Your task to perform on an android device: Open Yahoo.com Image 0: 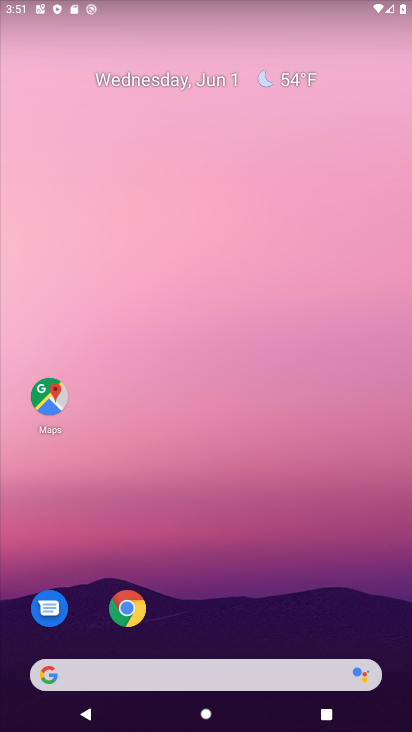
Step 0: click (137, 606)
Your task to perform on an android device: Open Yahoo.com Image 1: 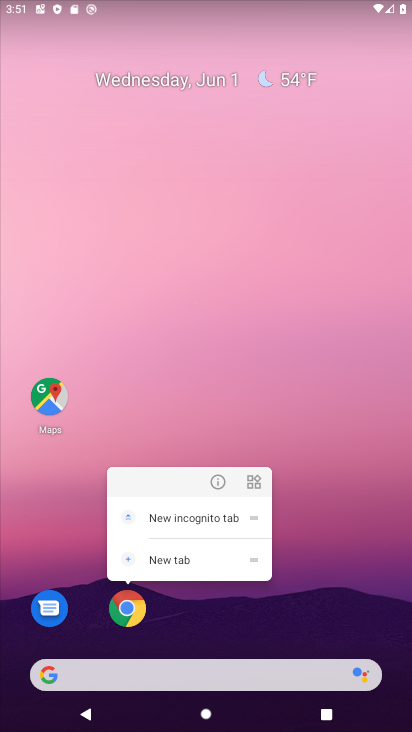
Step 1: click (133, 612)
Your task to perform on an android device: Open Yahoo.com Image 2: 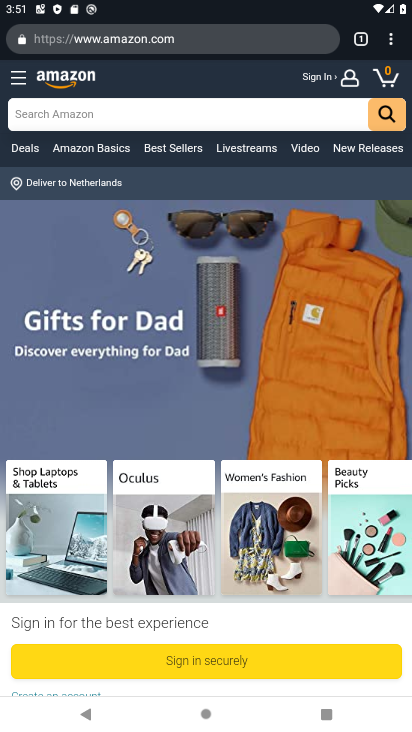
Step 2: click (364, 48)
Your task to perform on an android device: Open Yahoo.com Image 3: 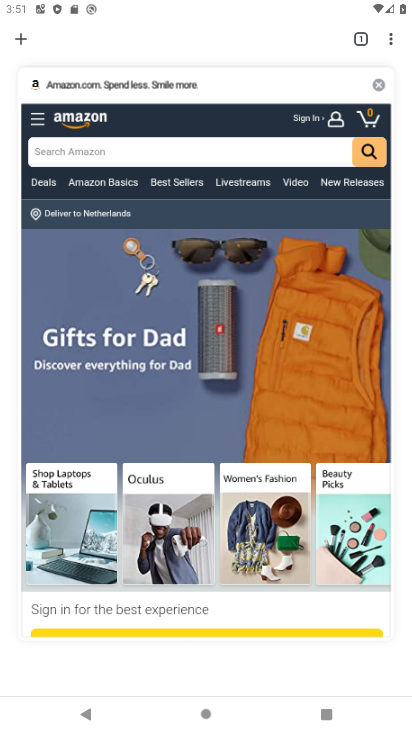
Step 3: click (379, 79)
Your task to perform on an android device: Open Yahoo.com Image 4: 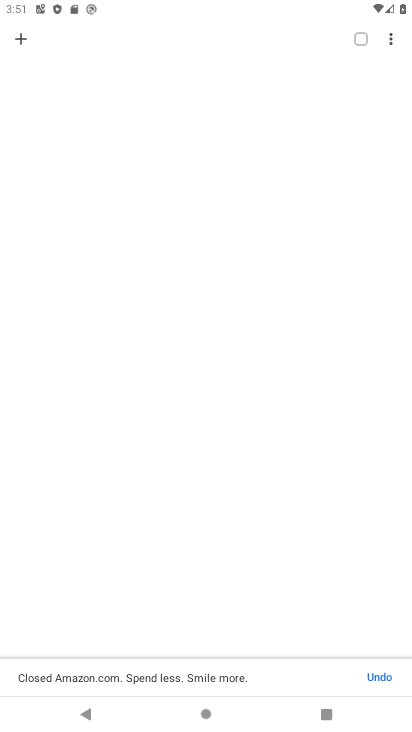
Step 4: click (15, 39)
Your task to perform on an android device: Open Yahoo.com Image 5: 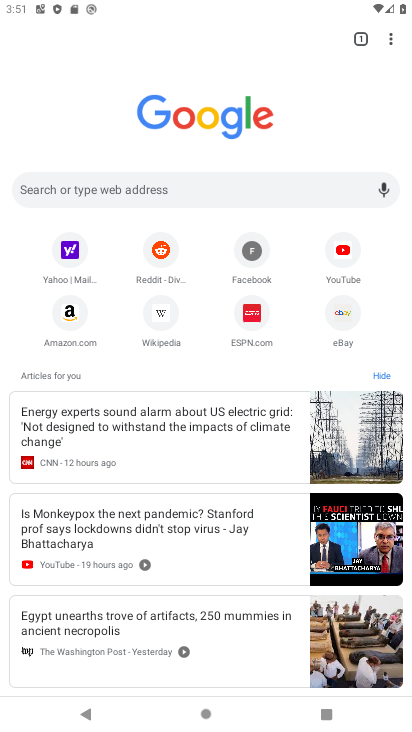
Step 5: click (66, 253)
Your task to perform on an android device: Open Yahoo.com Image 6: 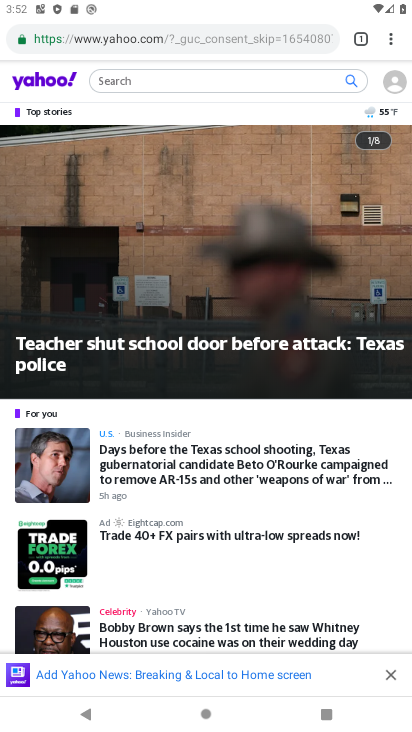
Step 6: task complete